Your task to perform on an android device: Check the news Image 0: 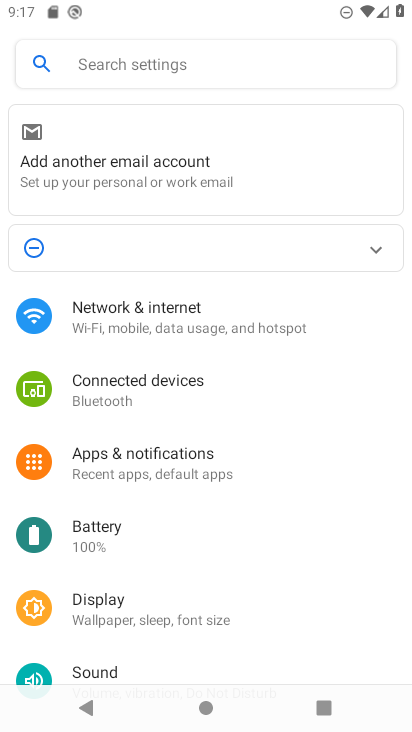
Step 0: drag from (232, 655) to (249, 149)
Your task to perform on an android device: Check the news Image 1: 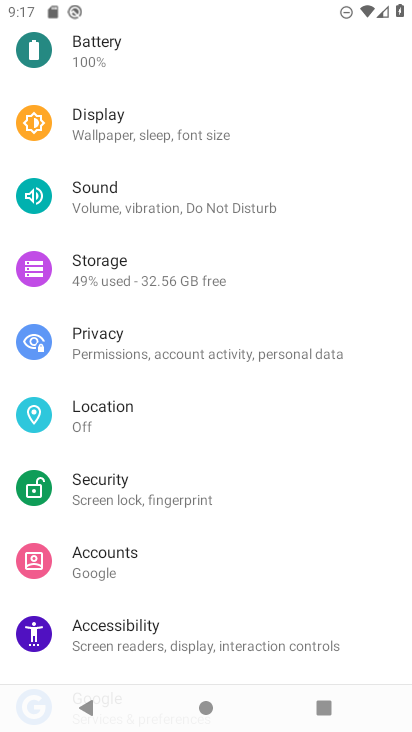
Step 1: drag from (187, 157) to (386, 694)
Your task to perform on an android device: Check the news Image 2: 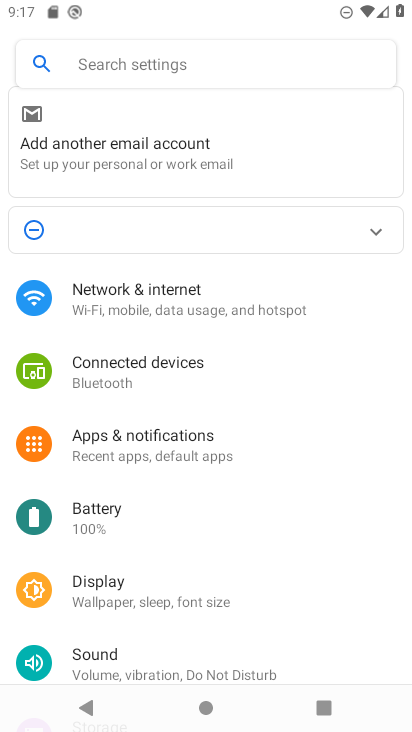
Step 2: press home button
Your task to perform on an android device: Check the news Image 3: 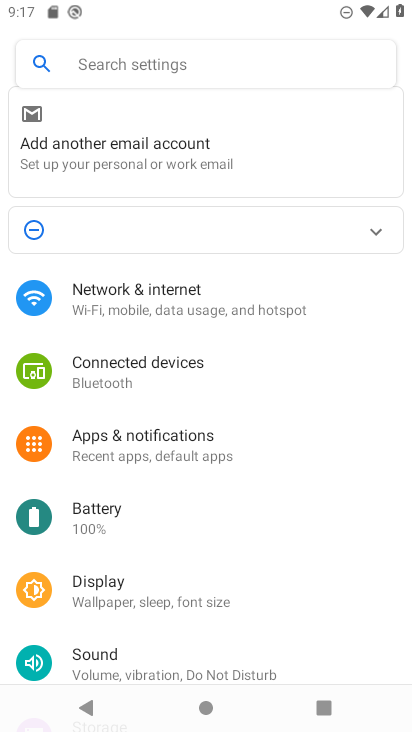
Step 3: click (336, 453)
Your task to perform on an android device: Check the news Image 4: 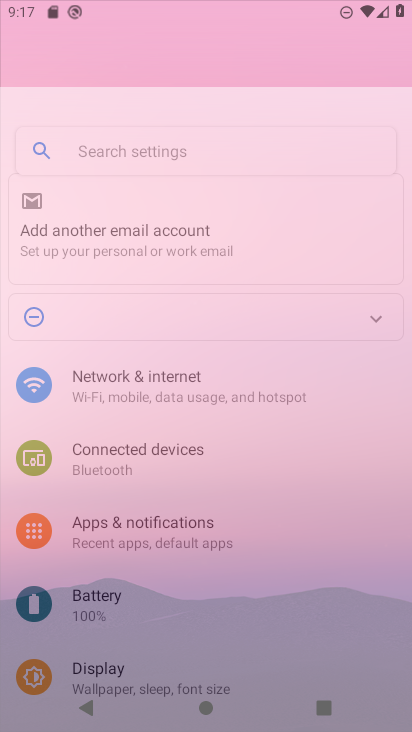
Step 4: drag from (131, 584) to (263, 33)
Your task to perform on an android device: Check the news Image 5: 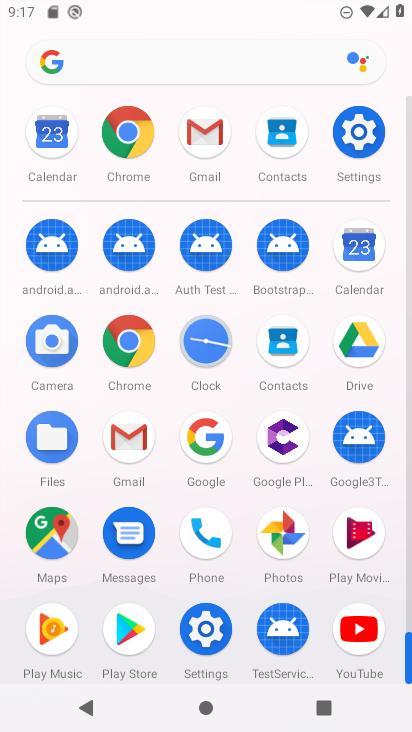
Step 5: click (194, 45)
Your task to perform on an android device: Check the news Image 6: 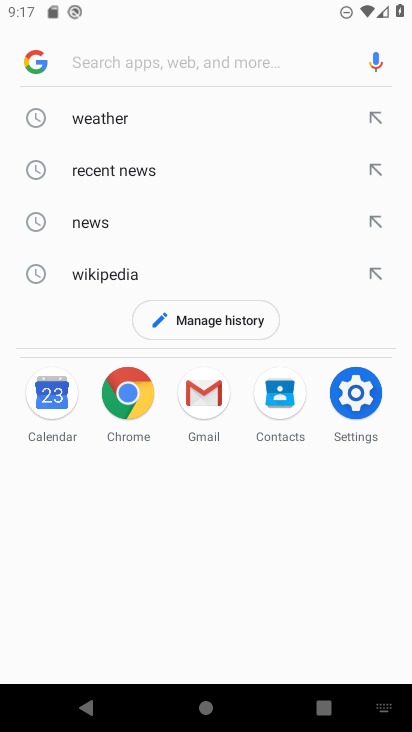
Step 6: click (124, 230)
Your task to perform on an android device: Check the news Image 7: 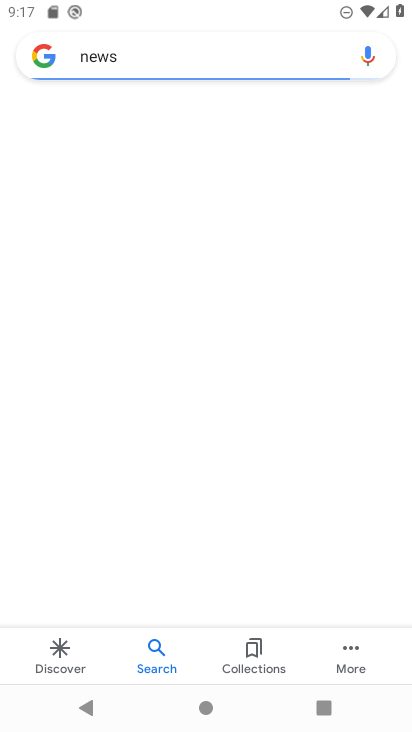
Step 7: task complete